Your task to perform on an android device: Set the phone to "Do not disturb". Image 0: 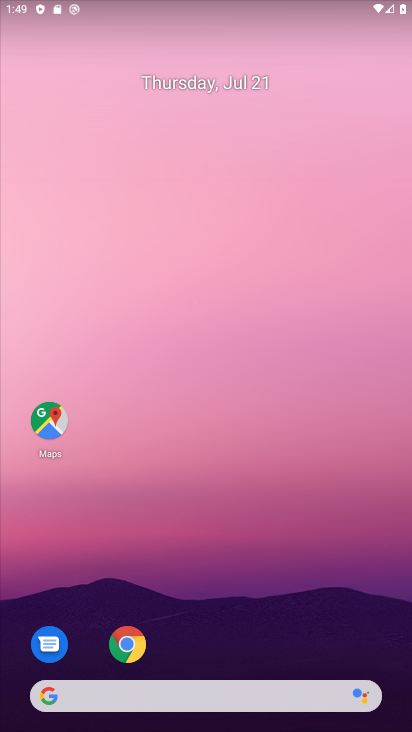
Step 0: drag from (222, 640) to (216, 6)
Your task to perform on an android device: Set the phone to "Do not disturb". Image 1: 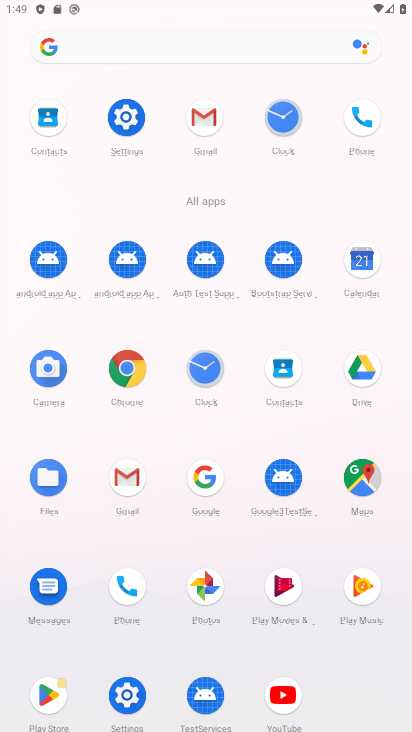
Step 1: click (123, 134)
Your task to perform on an android device: Set the phone to "Do not disturb". Image 2: 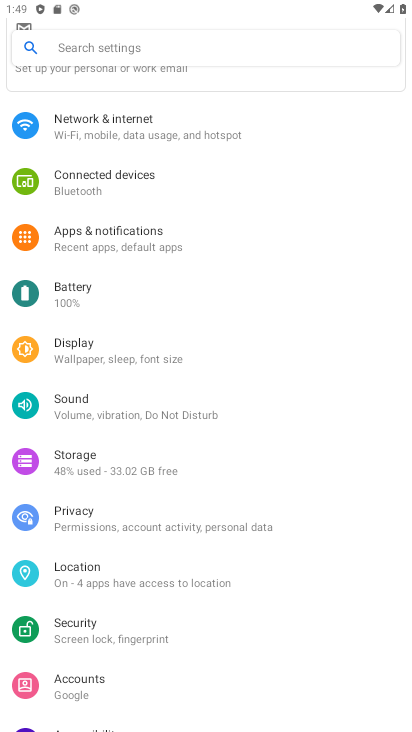
Step 2: click (121, 417)
Your task to perform on an android device: Set the phone to "Do not disturb". Image 3: 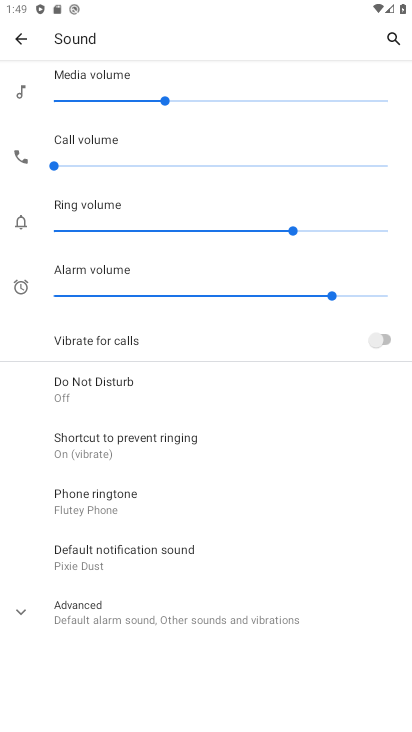
Step 3: click (119, 386)
Your task to perform on an android device: Set the phone to "Do not disturb". Image 4: 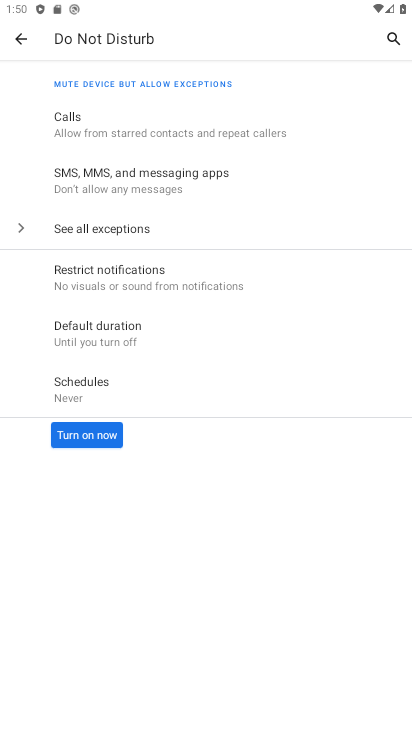
Step 4: click (92, 442)
Your task to perform on an android device: Set the phone to "Do not disturb". Image 5: 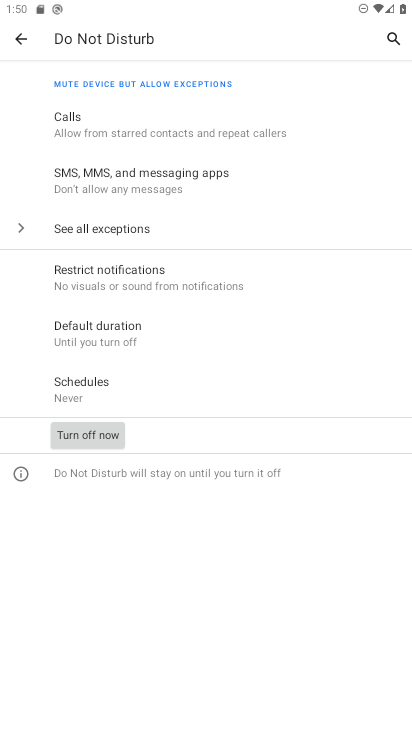
Step 5: task complete